Your task to perform on an android device: turn off picture-in-picture Image 0: 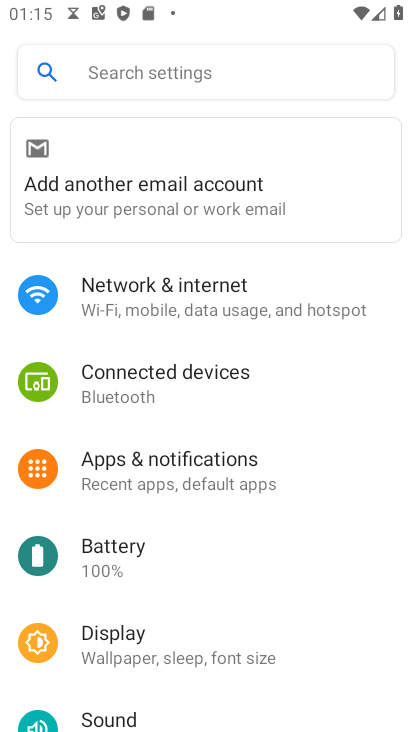
Step 0: press home button
Your task to perform on an android device: turn off picture-in-picture Image 1: 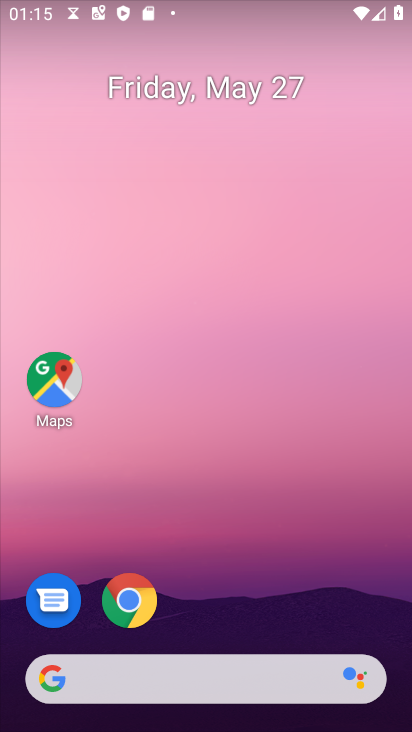
Step 1: drag from (301, 613) to (275, 138)
Your task to perform on an android device: turn off picture-in-picture Image 2: 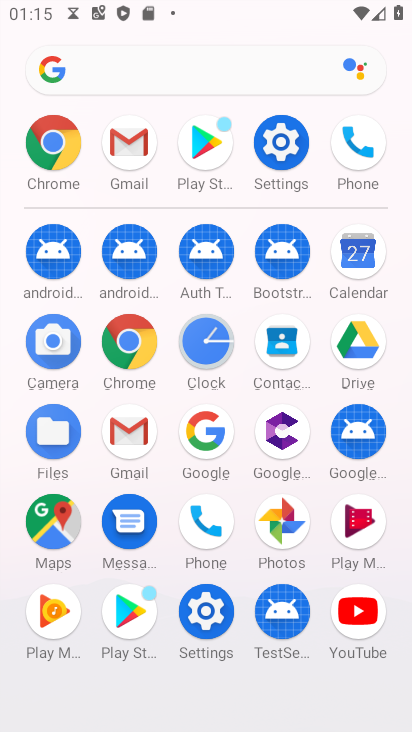
Step 2: click (278, 151)
Your task to perform on an android device: turn off picture-in-picture Image 3: 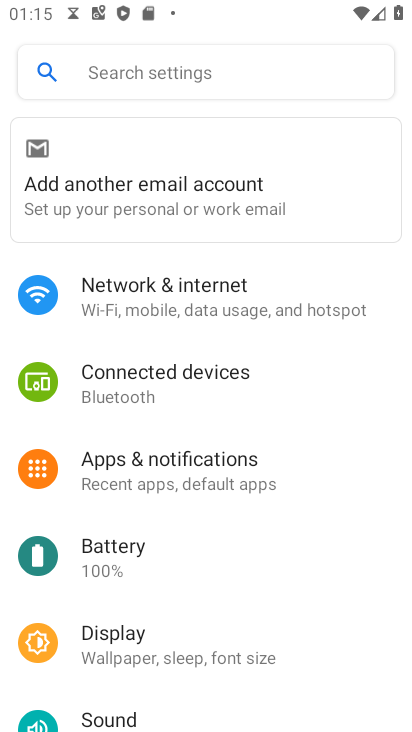
Step 3: drag from (242, 687) to (211, 273)
Your task to perform on an android device: turn off picture-in-picture Image 4: 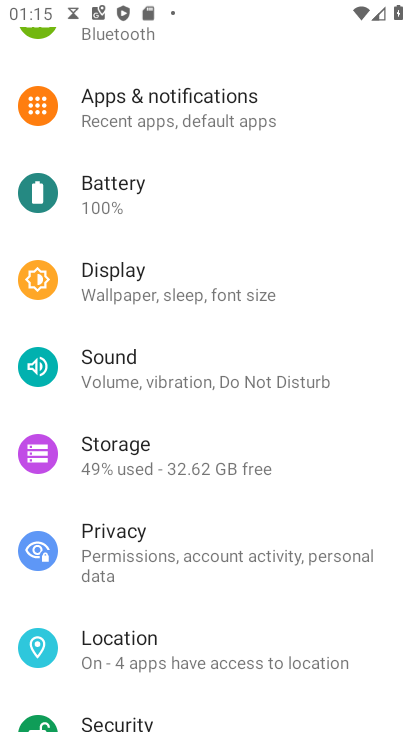
Step 4: drag from (149, 565) to (156, 202)
Your task to perform on an android device: turn off picture-in-picture Image 5: 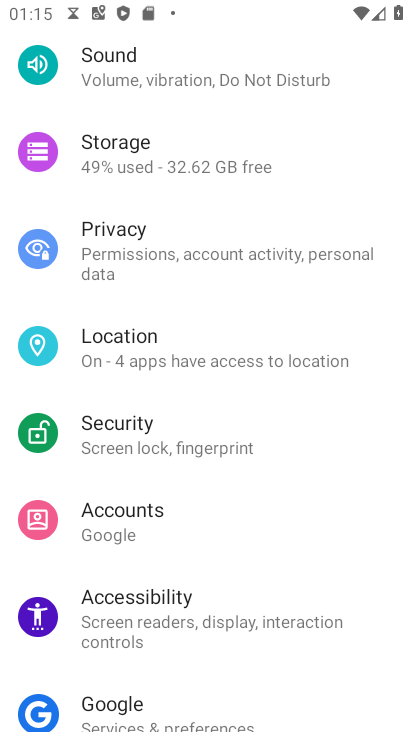
Step 5: drag from (113, 503) to (116, 228)
Your task to perform on an android device: turn off picture-in-picture Image 6: 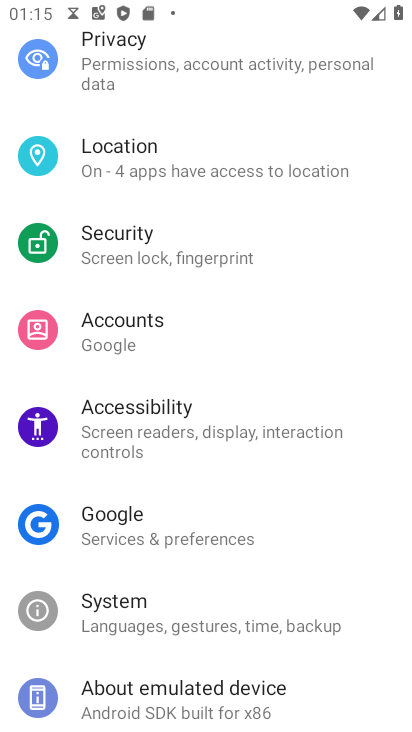
Step 6: drag from (133, 509) to (135, 233)
Your task to perform on an android device: turn off picture-in-picture Image 7: 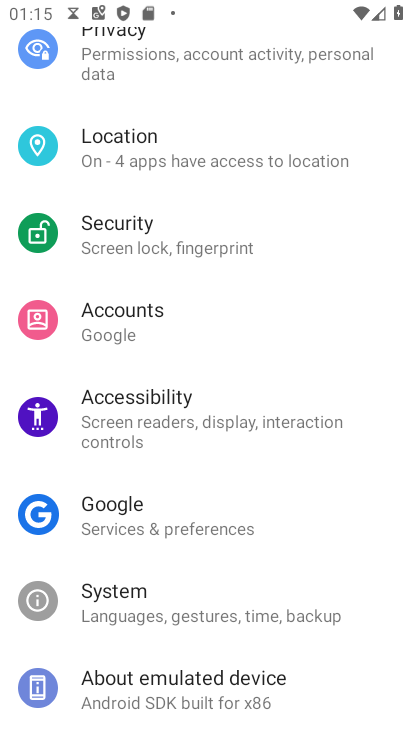
Step 7: drag from (154, 276) to (142, 707)
Your task to perform on an android device: turn off picture-in-picture Image 8: 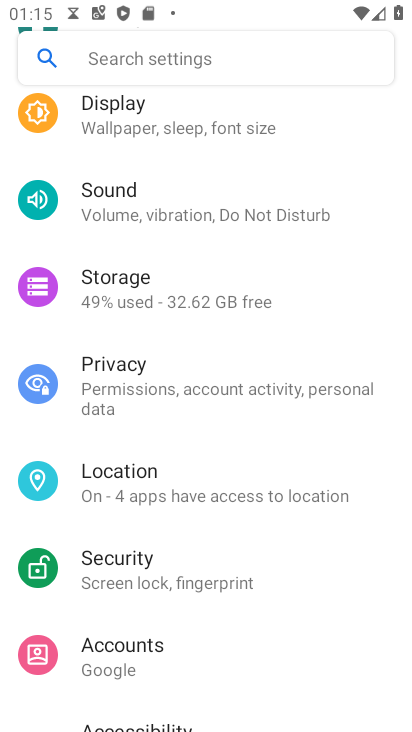
Step 8: drag from (169, 151) to (106, 625)
Your task to perform on an android device: turn off picture-in-picture Image 9: 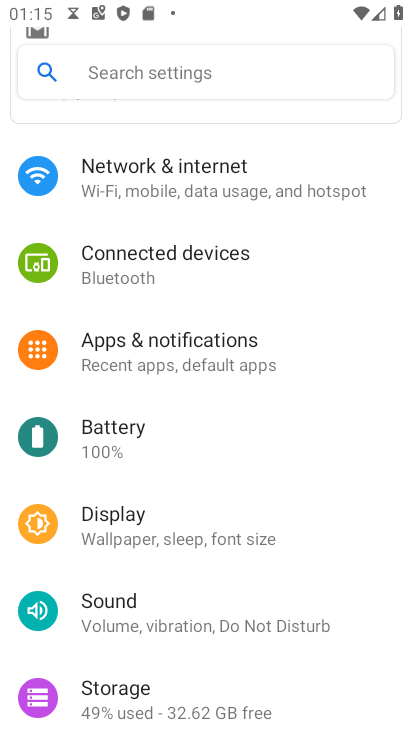
Step 9: drag from (170, 198) to (90, 605)
Your task to perform on an android device: turn off picture-in-picture Image 10: 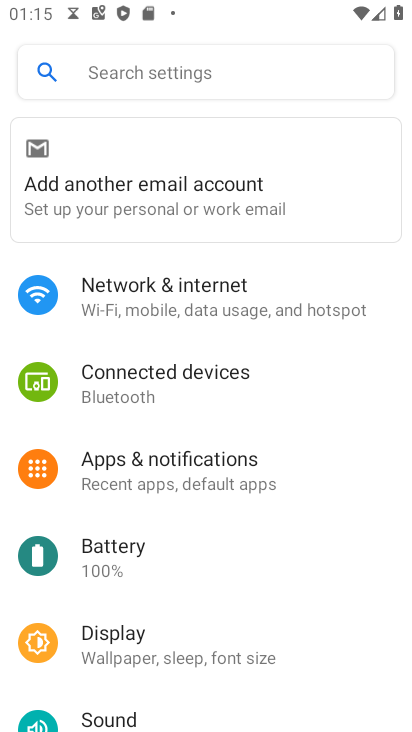
Step 10: drag from (192, 667) to (183, 170)
Your task to perform on an android device: turn off picture-in-picture Image 11: 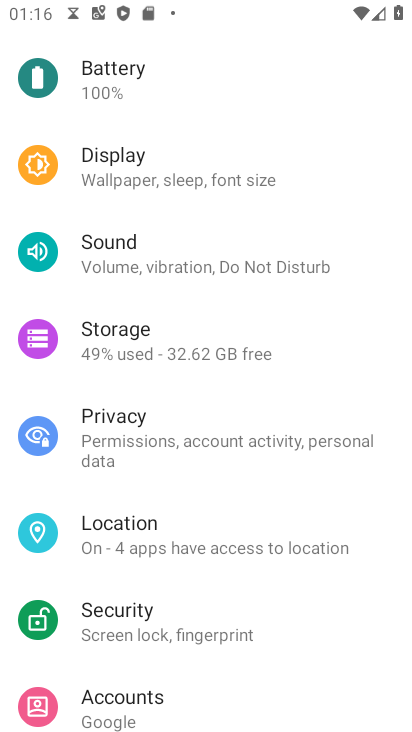
Step 11: drag from (163, 514) to (165, 126)
Your task to perform on an android device: turn off picture-in-picture Image 12: 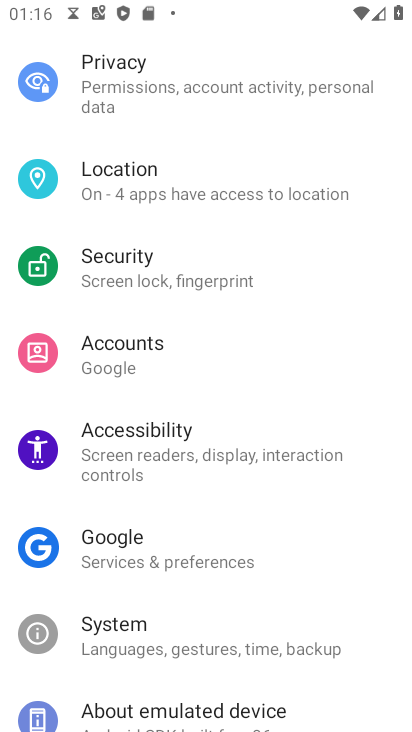
Step 12: drag from (124, 587) to (133, 92)
Your task to perform on an android device: turn off picture-in-picture Image 13: 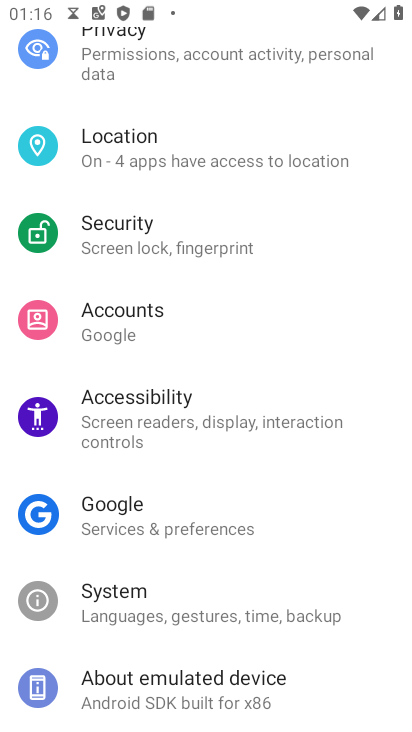
Step 13: drag from (118, 163) to (49, 725)
Your task to perform on an android device: turn off picture-in-picture Image 14: 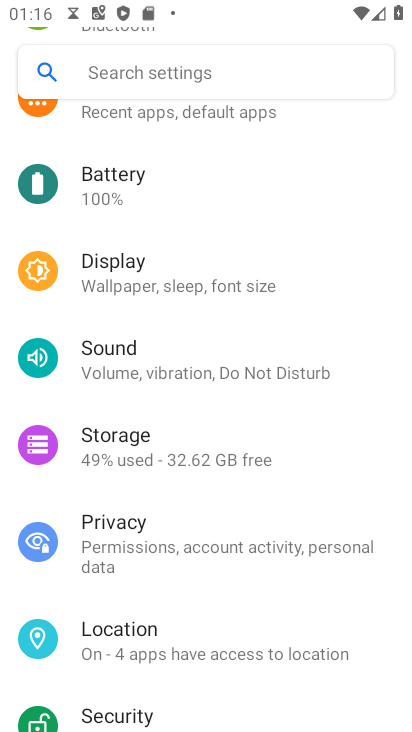
Step 14: drag from (144, 241) to (93, 617)
Your task to perform on an android device: turn off picture-in-picture Image 15: 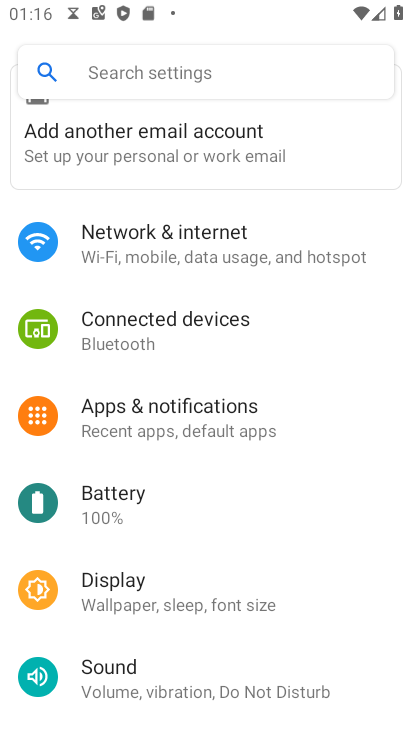
Step 15: press home button
Your task to perform on an android device: turn off picture-in-picture Image 16: 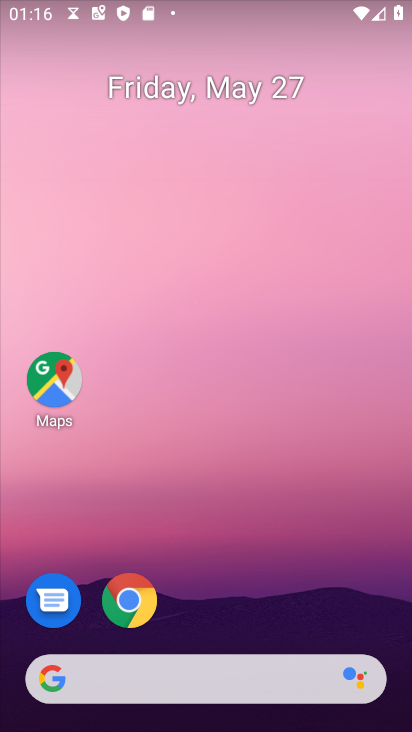
Step 16: drag from (234, 545) to (249, 163)
Your task to perform on an android device: turn off picture-in-picture Image 17: 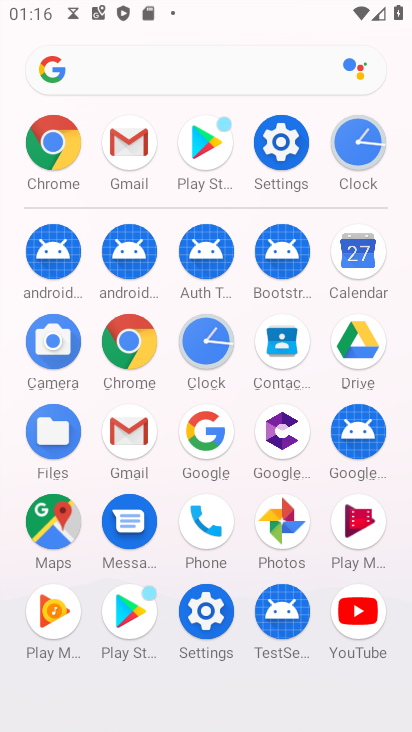
Step 17: click (271, 515)
Your task to perform on an android device: turn off picture-in-picture Image 18: 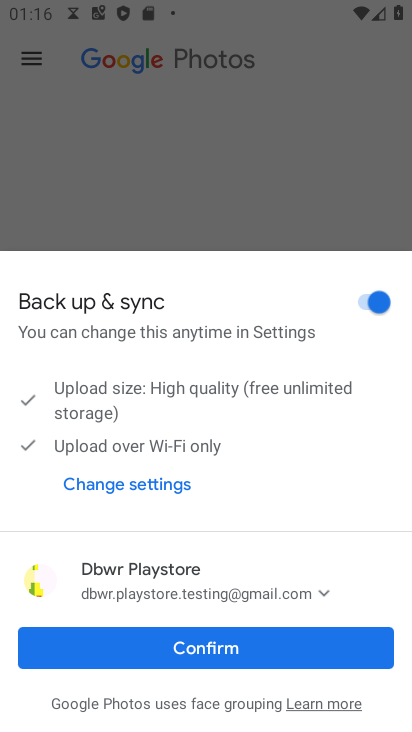
Step 18: click (227, 656)
Your task to perform on an android device: turn off picture-in-picture Image 19: 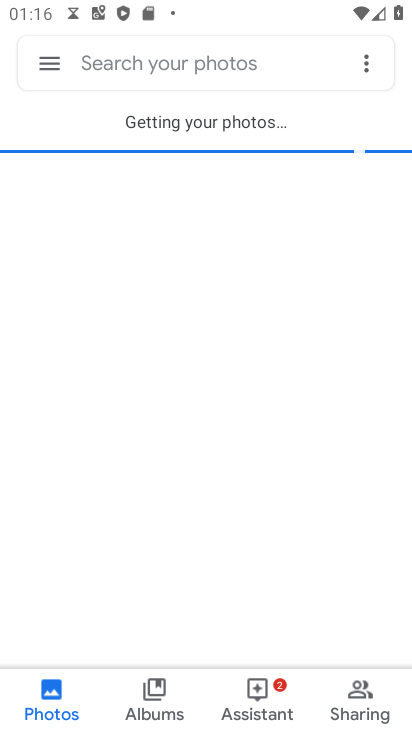
Step 19: click (43, 31)
Your task to perform on an android device: turn off picture-in-picture Image 20: 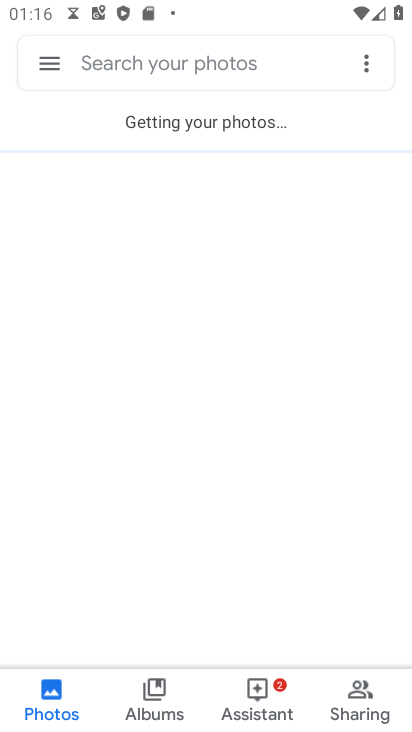
Step 20: click (42, 65)
Your task to perform on an android device: turn off picture-in-picture Image 21: 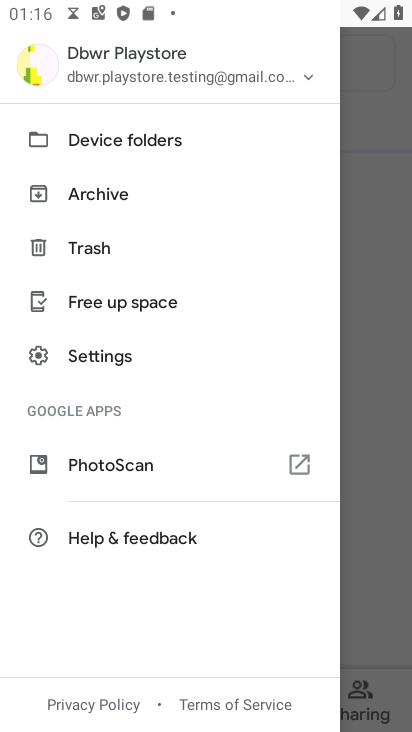
Step 21: click (83, 354)
Your task to perform on an android device: turn off picture-in-picture Image 22: 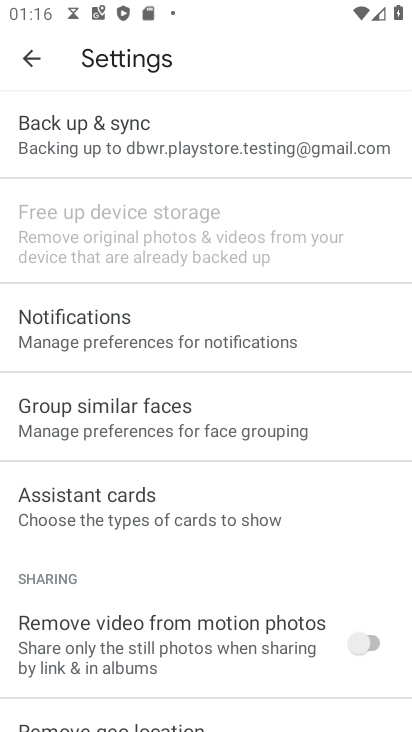
Step 22: drag from (72, 494) to (60, 170)
Your task to perform on an android device: turn off picture-in-picture Image 23: 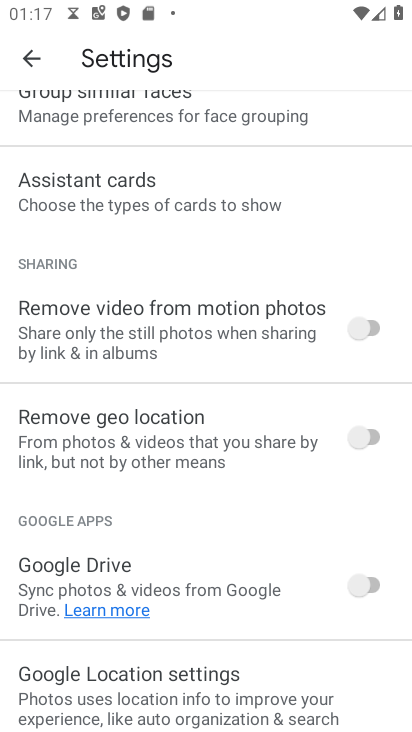
Step 23: drag from (59, 484) to (38, 107)
Your task to perform on an android device: turn off picture-in-picture Image 24: 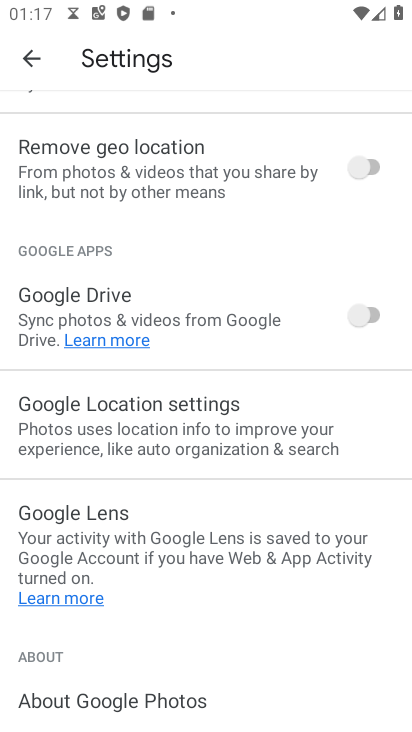
Step 24: drag from (87, 626) to (71, 167)
Your task to perform on an android device: turn off picture-in-picture Image 25: 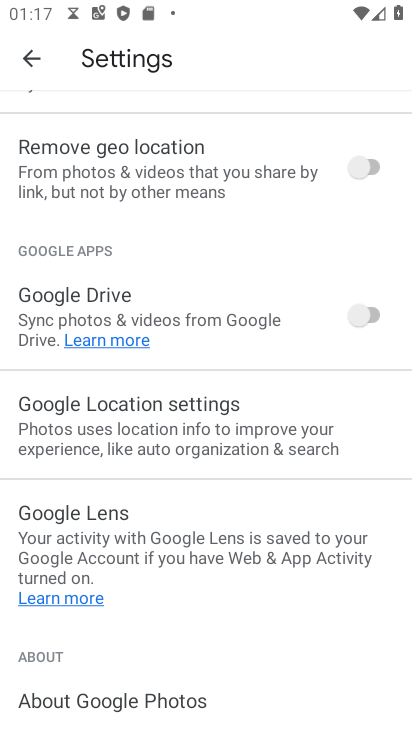
Step 25: click (118, 697)
Your task to perform on an android device: turn off picture-in-picture Image 26: 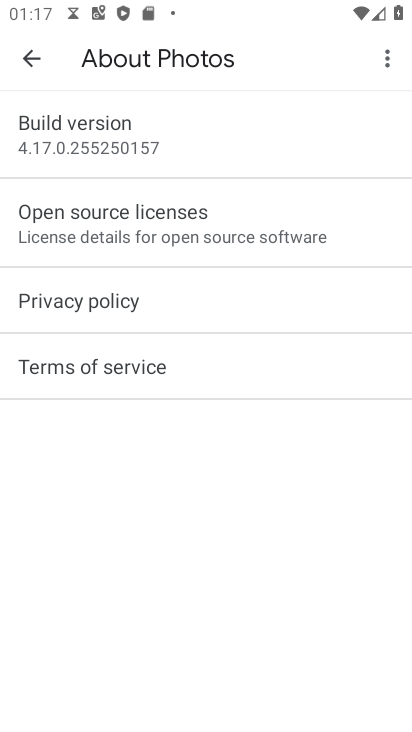
Step 26: task complete